Your task to perform on an android device: toggle javascript in the chrome app Image 0: 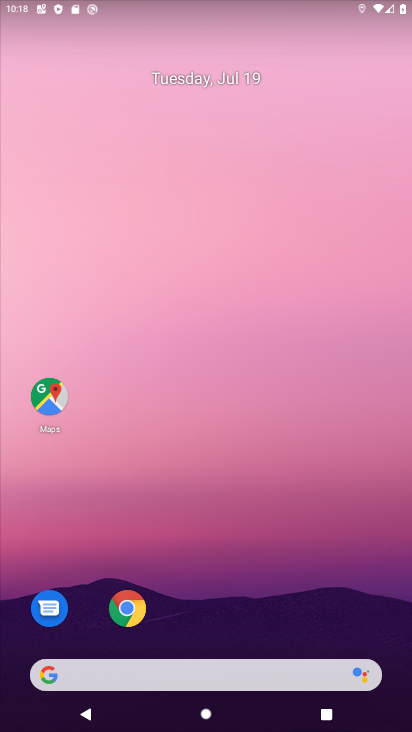
Step 0: click (135, 604)
Your task to perform on an android device: toggle javascript in the chrome app Image 1: 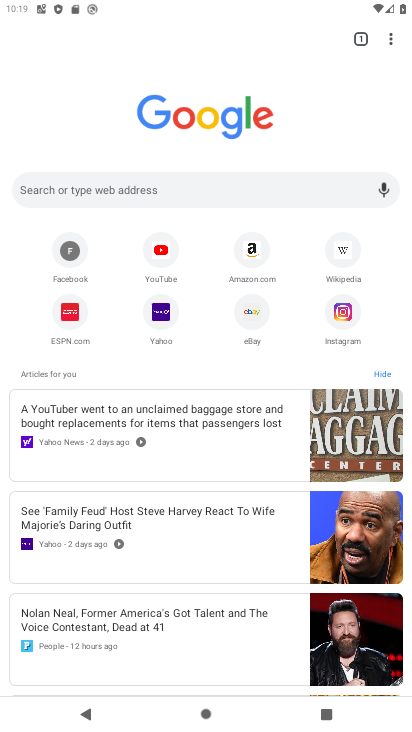
Step 1: click (398, 38)
Your task to perform on an android device: toggle javascript in the chrome app Image 2: 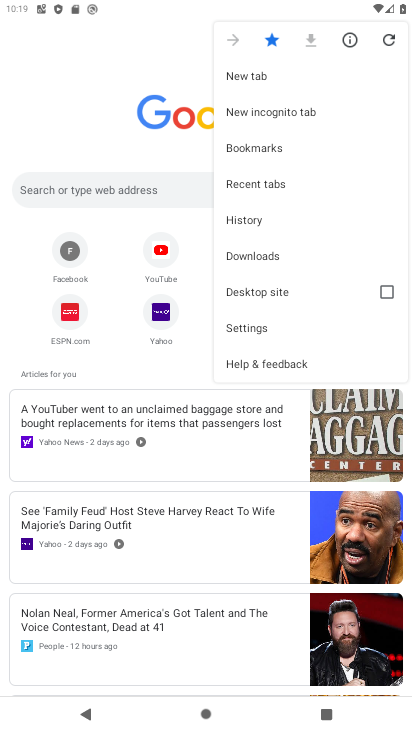
Step 2: click (259, 325)
Your task to perform on an android device: toggle javascript in the chrome app Image 3: 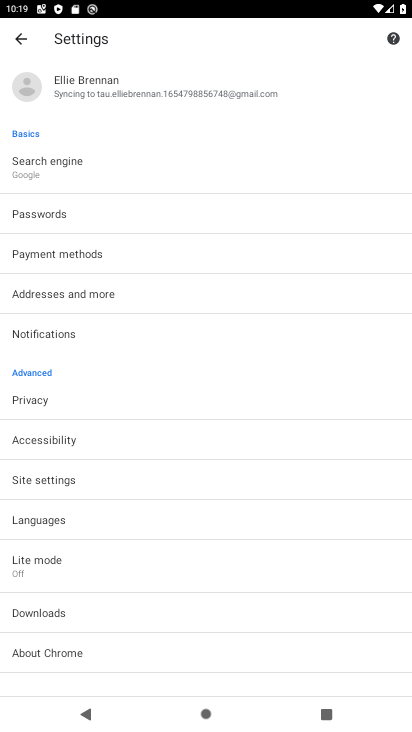
Step 3: click (42, 480)
Your task to perform on an android device: toggle javascript in the chrome app Image 4: 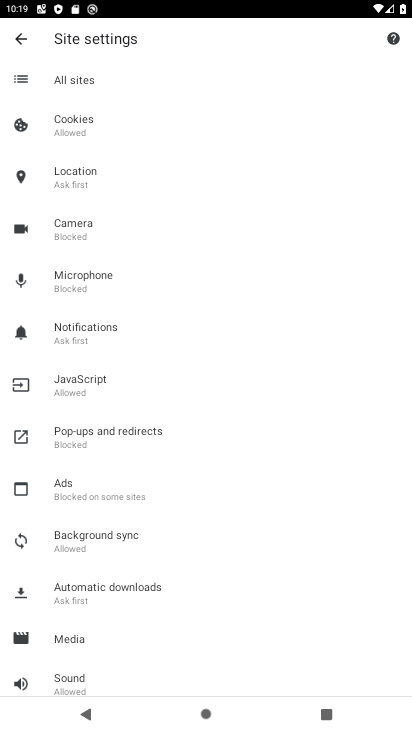
Step 4: click (58, 385)
Your task to perform on an android device: toggle javascript in the chrome app Image 5: 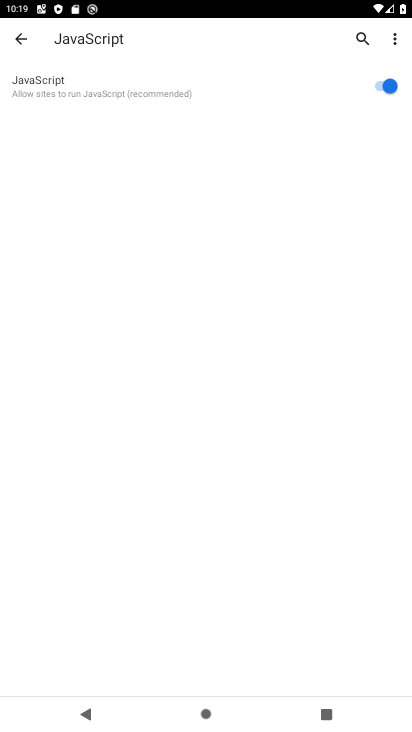
Step 5: click (375, 92)
Your task to perform on an android device: toggle javascript in the chrome app Image 6: 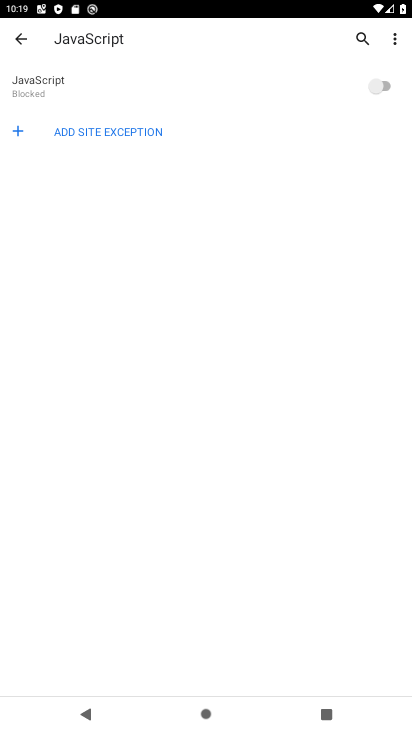
Step 6: task complete